Your task to perform on an android device: show emergency info Image 0: 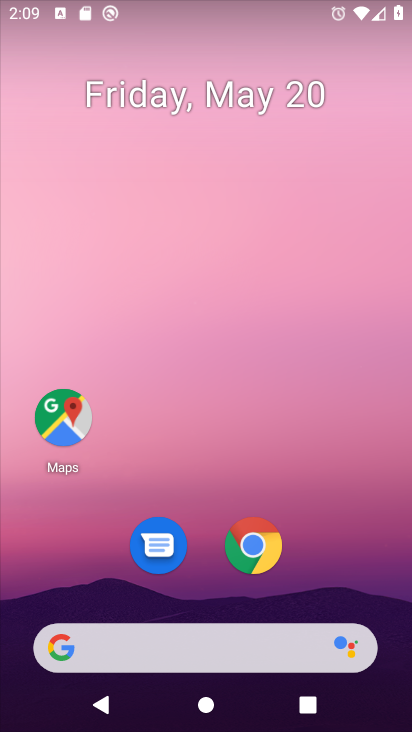
Step 0: drag from (289, 602) to (299, 127)
Your task to perform on an android device: show emergency info Image 1: 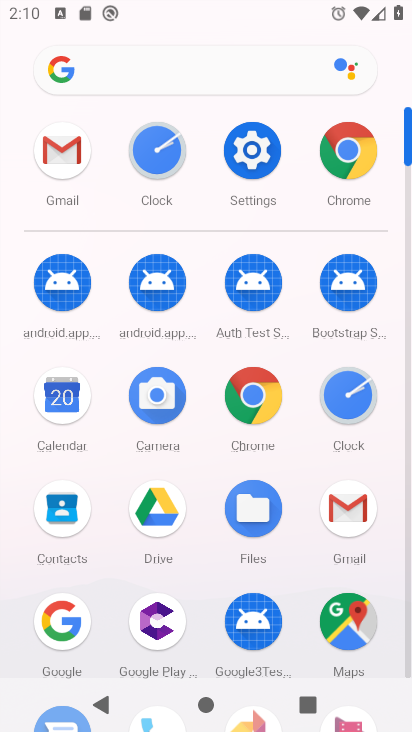
Step 1: click (252, 152)
Your task to perform on an android device: show emergency info Image 2: 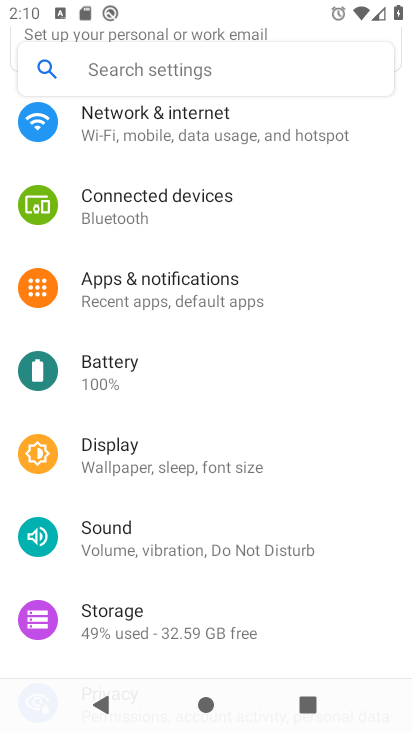
Step 2: drag from (121, 620) to (216, 102)
Your task to perform on an android device: show emergency info Image 3: 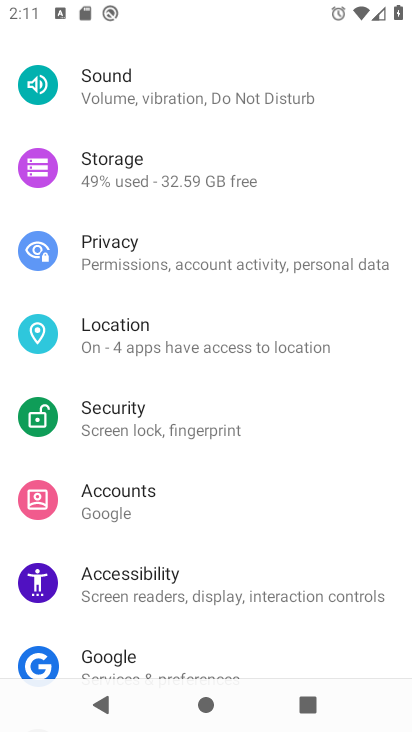
Step 3: drag from (224, 640) to (311, 197)
Your task to perform on an android device: show emergency info Image 4: 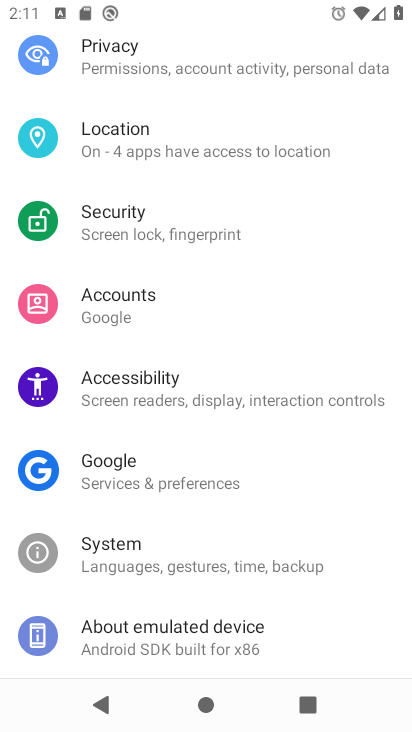
Step 4: click (177, 638)
Your task to perform on an android device: show emergency info Image 5: 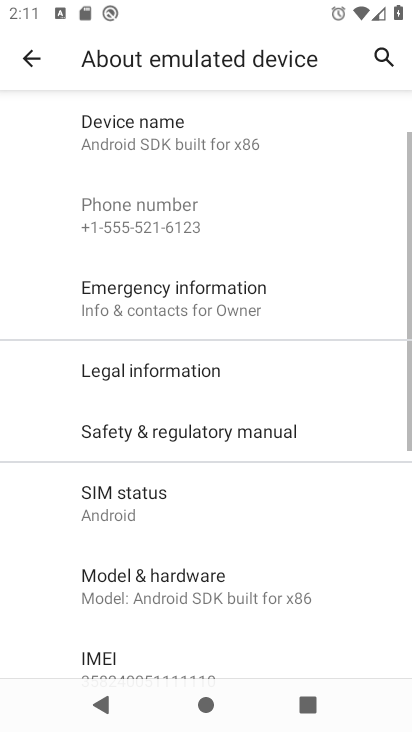
Step 5: drag from (266, 665) to (298, 195)
Your task to perform on an android device: show emergency info Image 6: 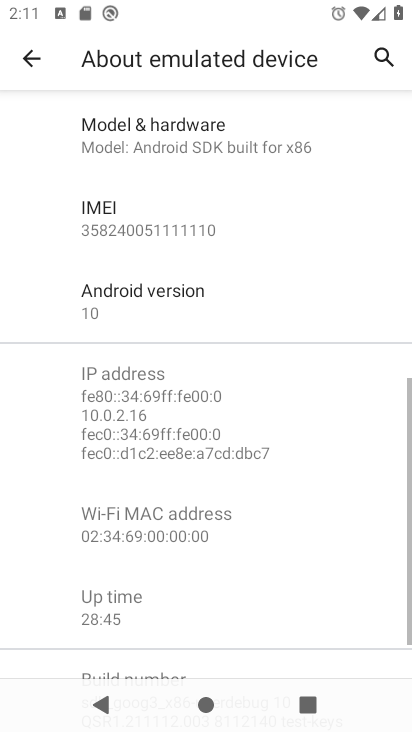
Step 6: drag from (226, 643) to (257, 692)
Your task to perform on an android device: show emergency info Image 7: 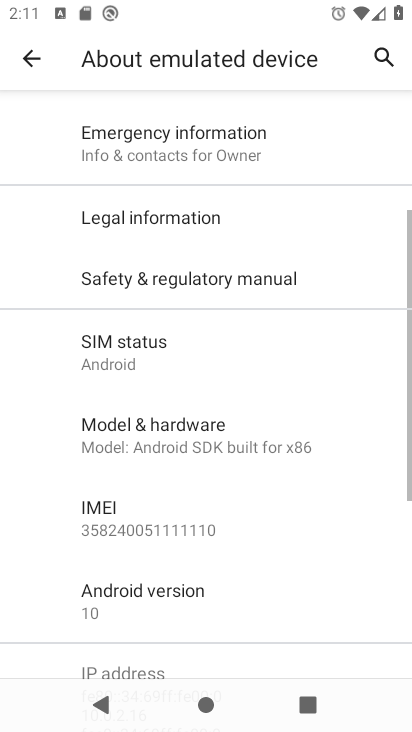
Step 7: drag from (239, 191) to (246, 705)
Your task to perform on an android device: show emergency info Image 8: 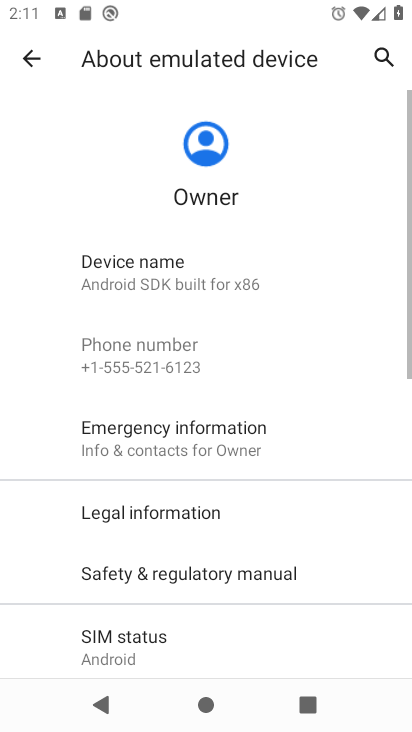
Step 8: click (224, 441)
Your task to perform on an android device: show emergency info Image 9: 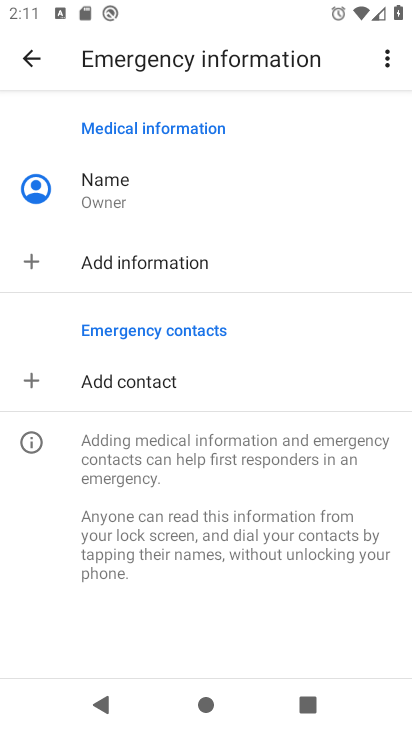
Step 9: task complete